Your task to perform on an android device: Go to internet settings Image 0: 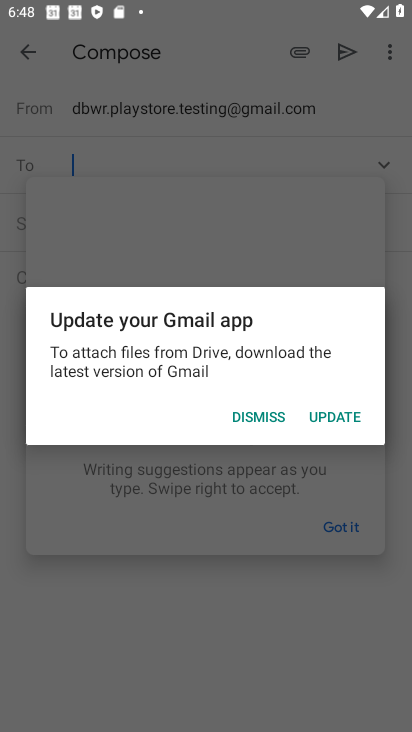
Step 0: click (254, 414)
Your task to perform on an android device: Go to internet settings Image 1: 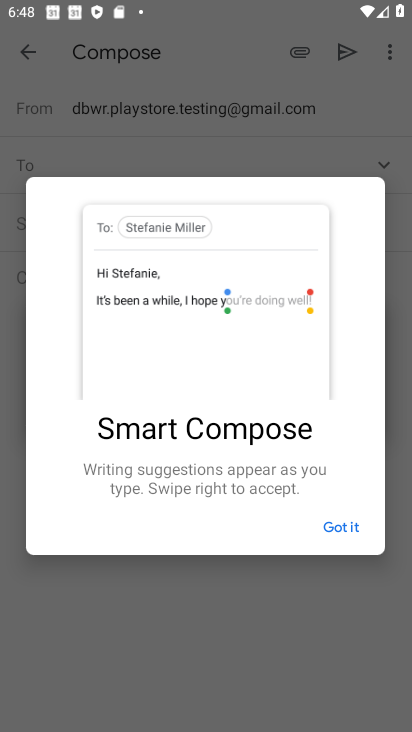
Step 1: press home button
Your task to perform on an android device: Go to internet settings Image 2: 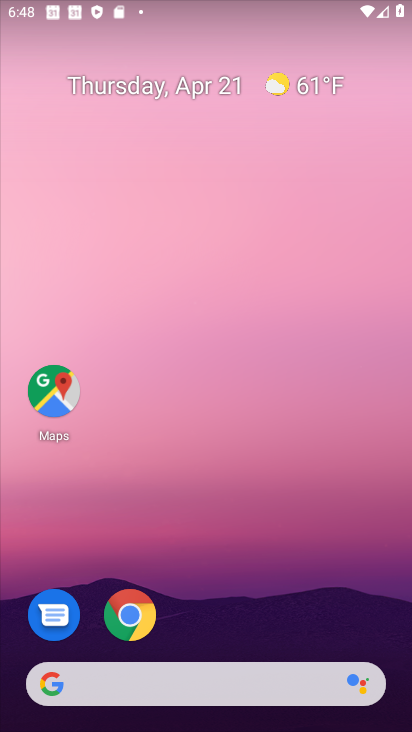
Step 2: drag from (245, 542) to (284, 230)
Your task to perform on an android device: Go to internet settings Image 3: 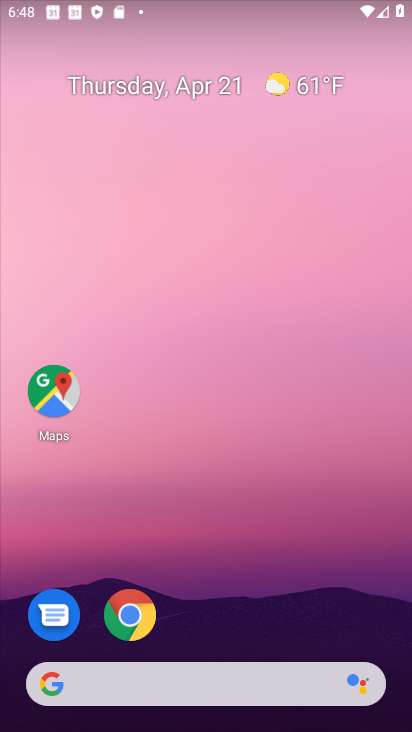
Step 3: drag from (219, 618) to (276, 141)
Your task to perform on an android device: Go to internet settings Image 4: 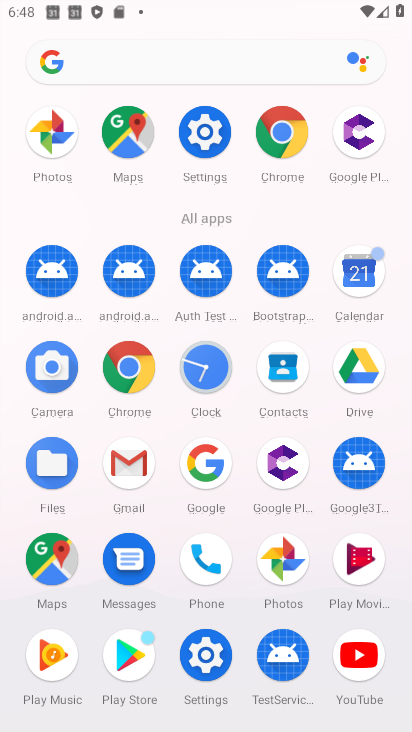
Step 4: click (192, 140)
Your task to perform on an android device: Go to internet settings Image 5: 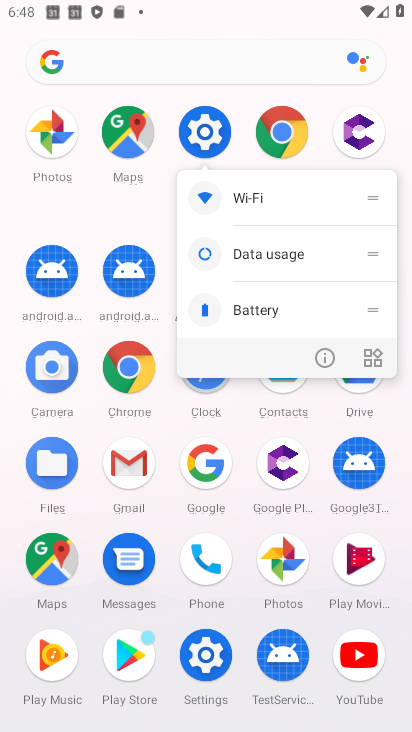
Step 5: click (332, 366)
Your task to perform on an android device: Go to internet settings Image 6: 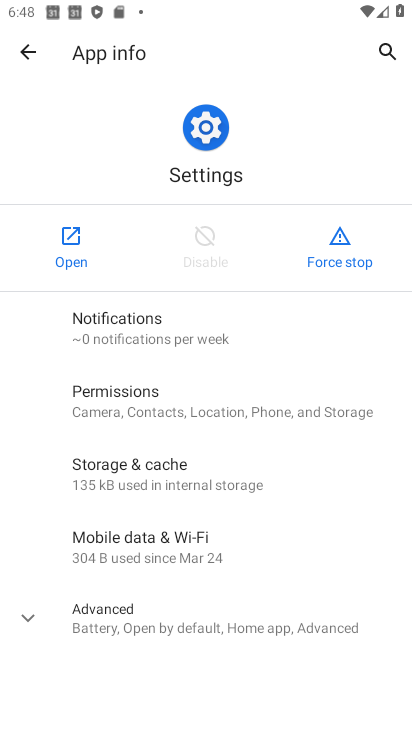
Step 6: click (86, 235)
Your task to perform on an android device: Go to internet settings Image 7: 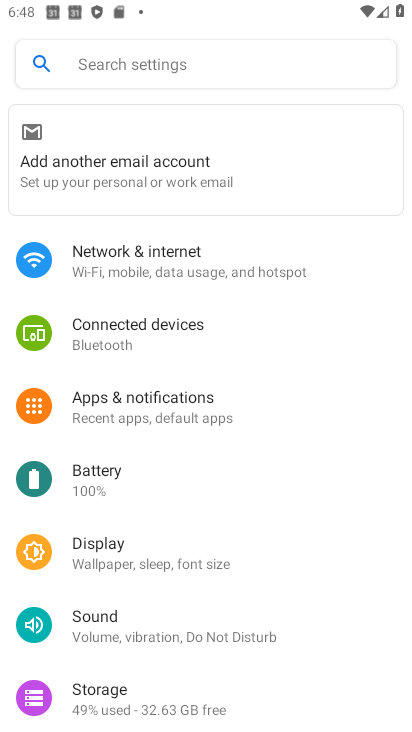
Step 7: click (140, 269)
Your task to perform on an android device: Go to internet settings Image 8: 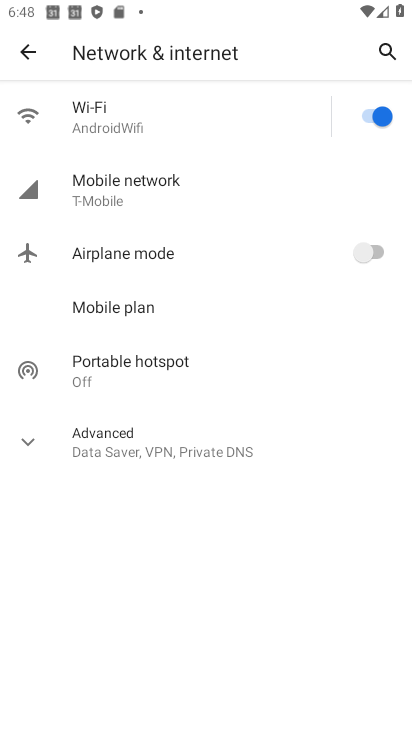
Step 8: task complete